Your task to perform on an android device: Check the weather Image 0: 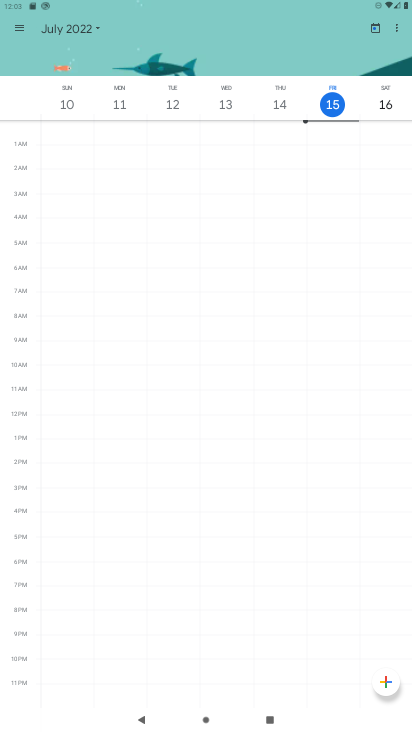
Step 0: press home button
Your task to perform on an android device: Check the weather Image 1: 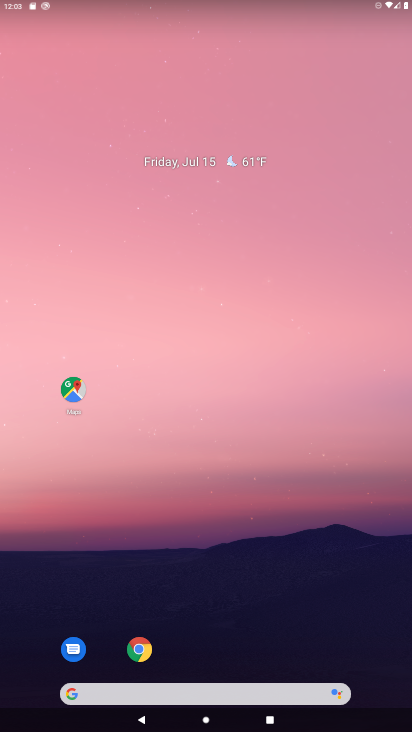
Step 1: click (262, 167)
Your task to perform on an android device: Check the weather Image 2: 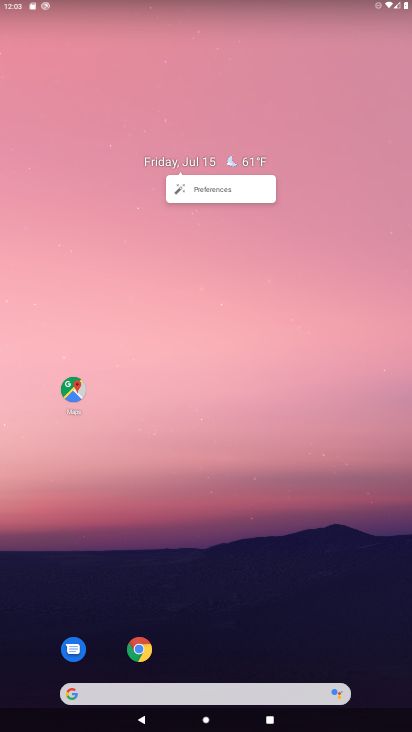
Step 2: click (262, 167)
Your task to perform on an android device: Check the weather Image 3: 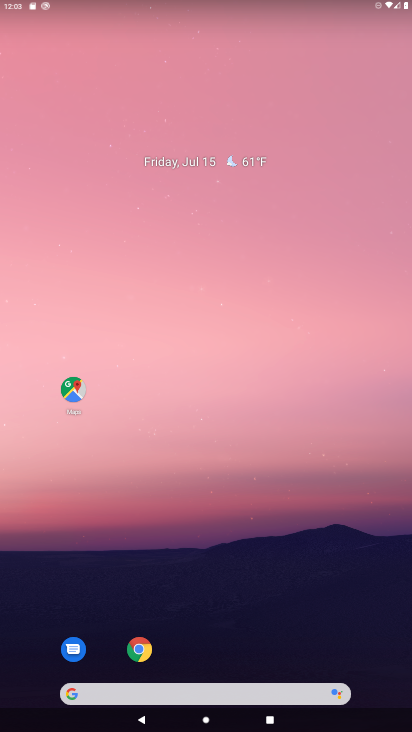
Step 3: click (252, 165)
Your task to perform on an android device: Check the weather Image 4: 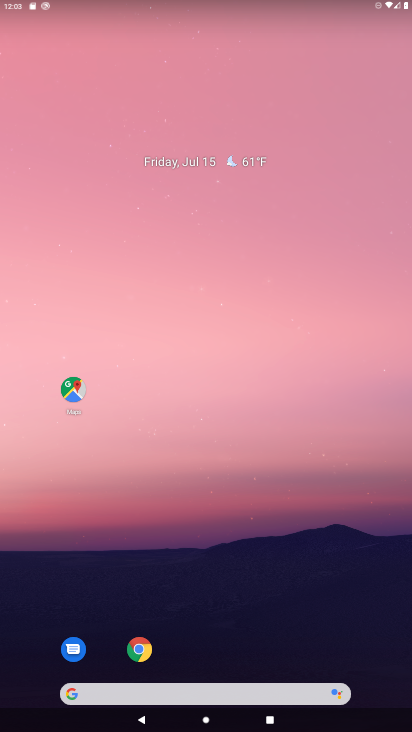
Step 4: click (246, 165)
Your task to perform on an android device: Check the weather Image 5: 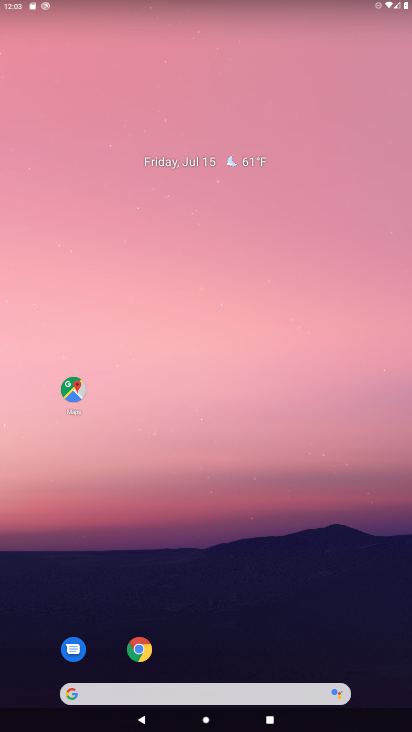
Step 5: click (159, 692)
Your task to perform on an android device: Check the weather Image 6: 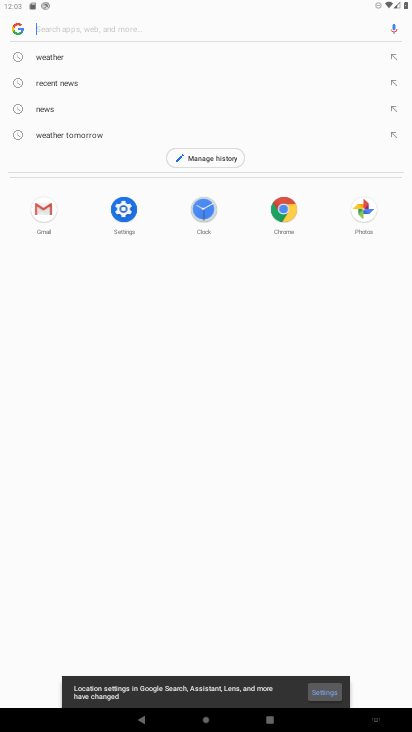
Step 6: click (46, 55)
Your task to perform on an android device: Check the weather Image 7: 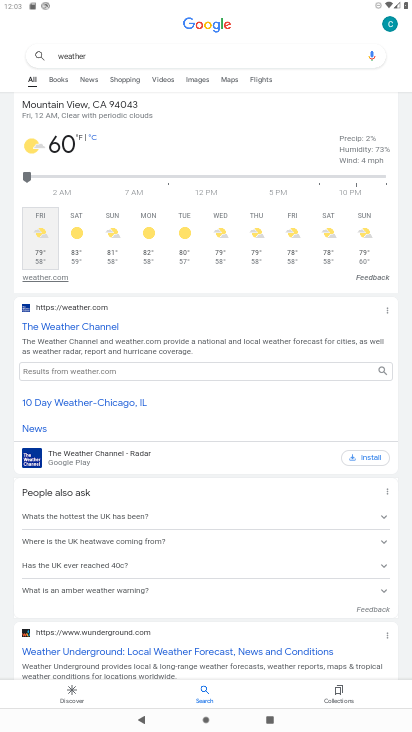
Step 7: task complete